Your task to perform on an android device: Open CNN.com Image 0: 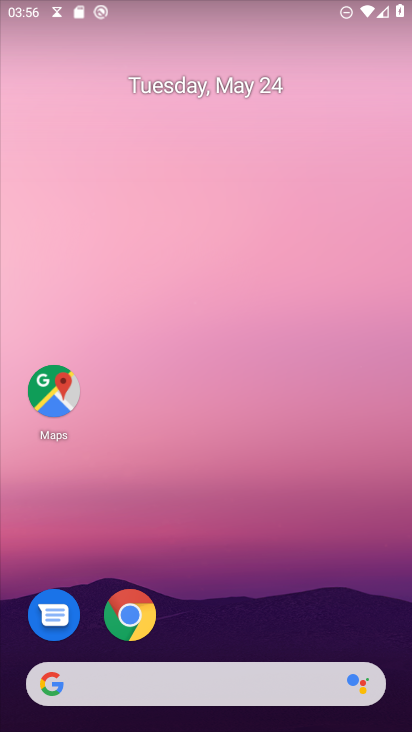
Step 0: drag from (235, 304) to (226, 45)
Your task to perform on an android device: Open CNN.com Image 1: 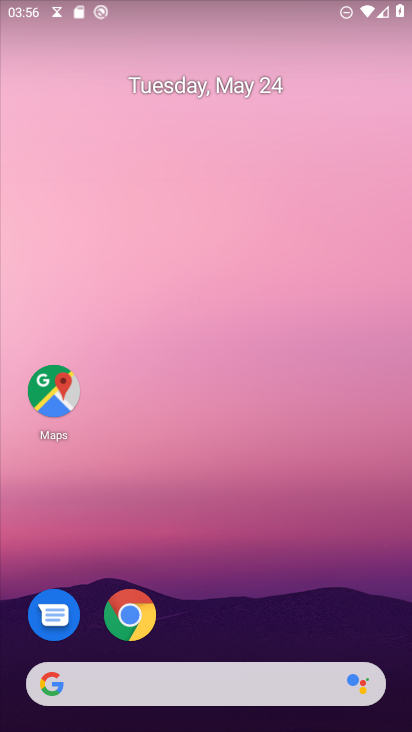
Step 1: click (127, 614)
Your task to perform on an android device: Open CNN.com Image 2: 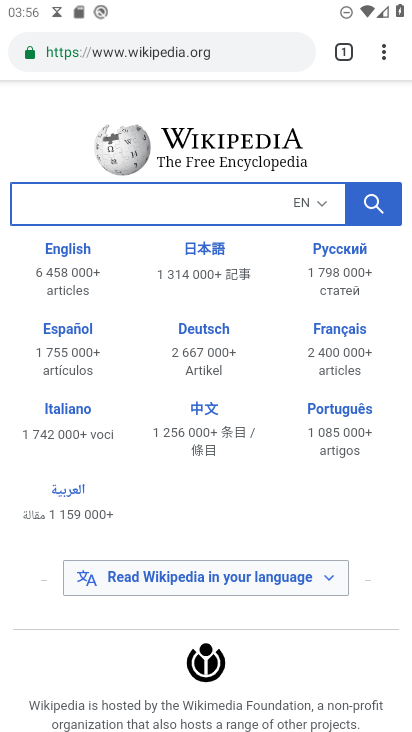
Step 2: click (159, 50)
Your task to perform on an android device: Open CNN.com Image 3: 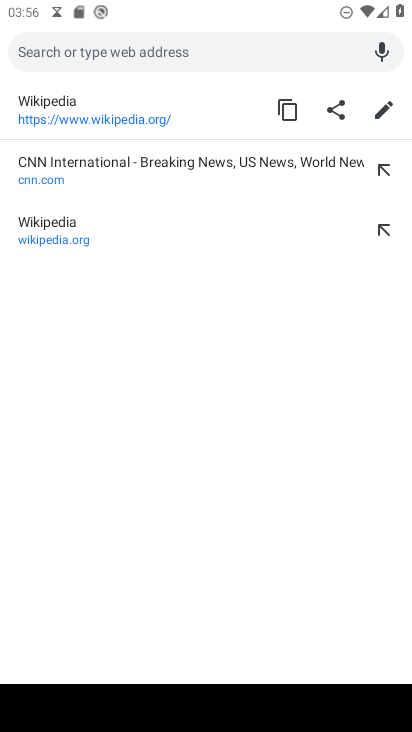
Step 3: click (93, 165)
Your task to perform on an android device: Open CNN.com Image 4: 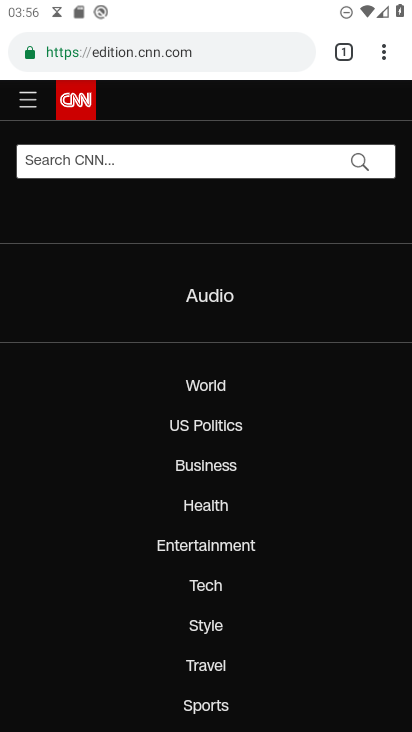
Step 4: click (180, 42)
Your task to perform on an android device: Open CNN.com Image 5: 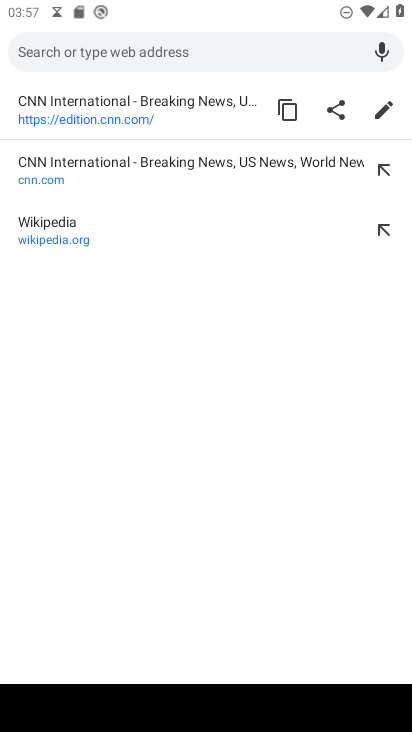
Step 5: click (72, 104)
Your task to perform on an android device: Open CNN.com Image 6: 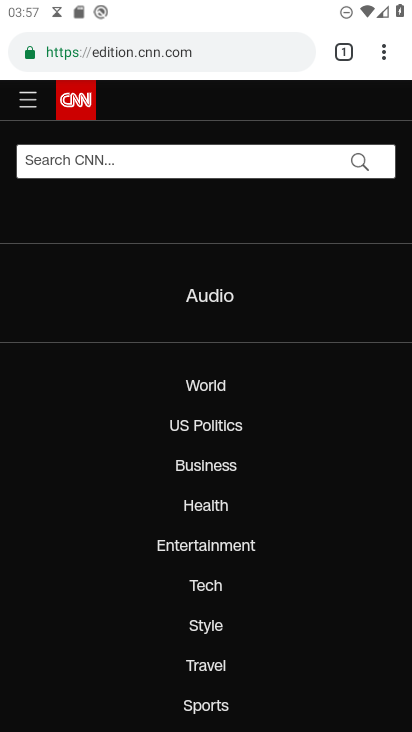
Step 6: task complete